Your task to perform on an android device: Do I have any events this weekend? Image 0: 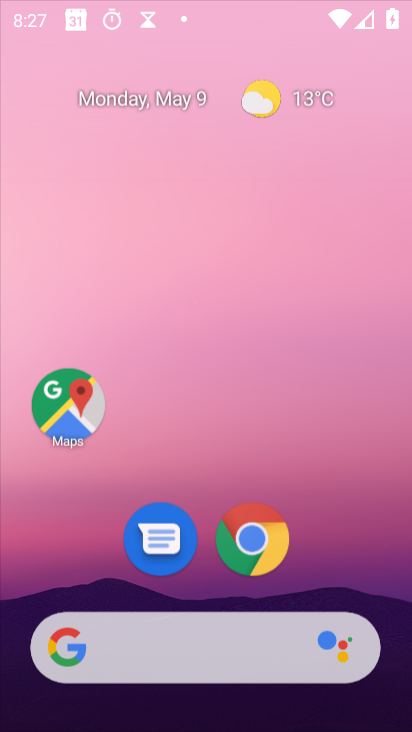
Step 0: drag from (404, 114) to (408, 368)
Your task to perform on an android device: Do I have any events this weekend? Image 1: 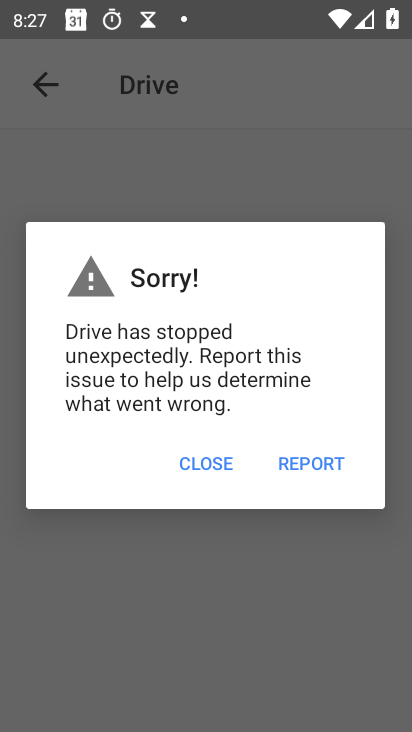
Step 1: press home button
Your task to perform on an android device: Do I have any events this weekend? Image 2: 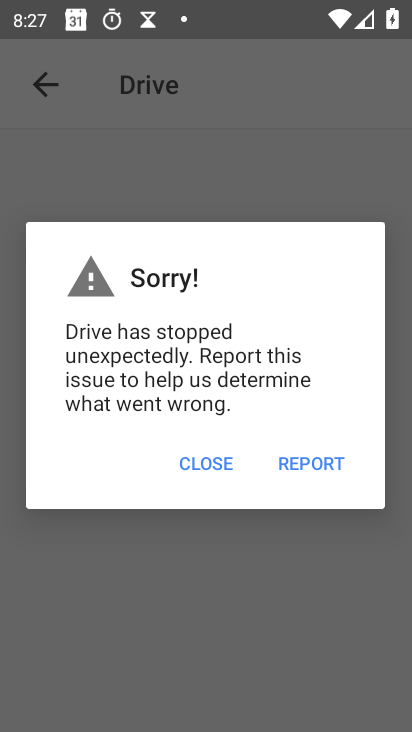
Step 2: drag from (408, 368) to (383, 512)
Your task to perform on an android device: Do I have any events this weekend? Image 3: 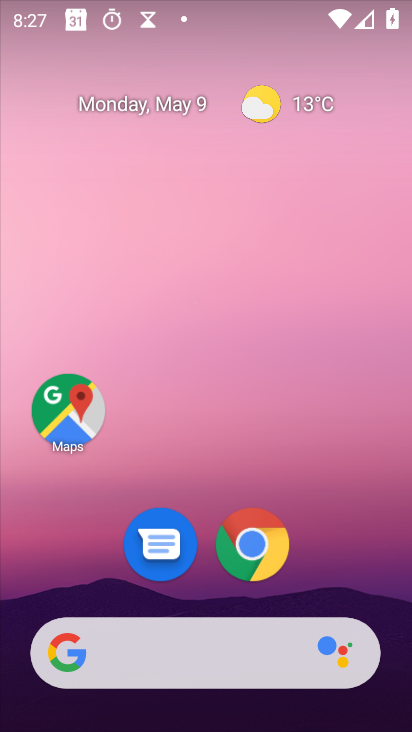
Step 3: drag from (332, 569) to (356, 44)
Your task to perform on an android device: Do I have any events this weekend? Image 4: 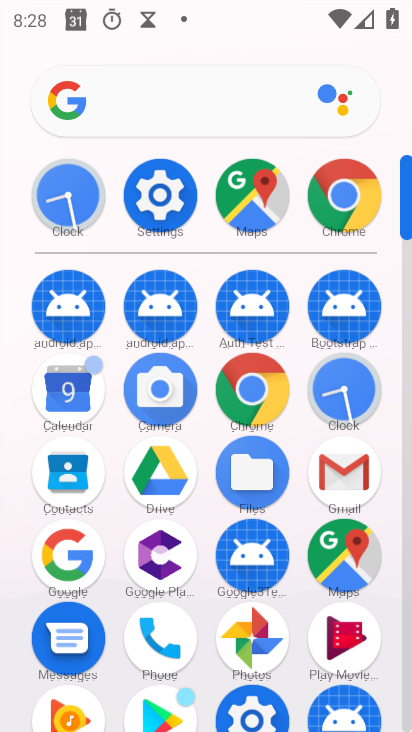
Step 4: click (72, 391)
Your task to perform on an android device: Do I have any events this weekend? Image 5: 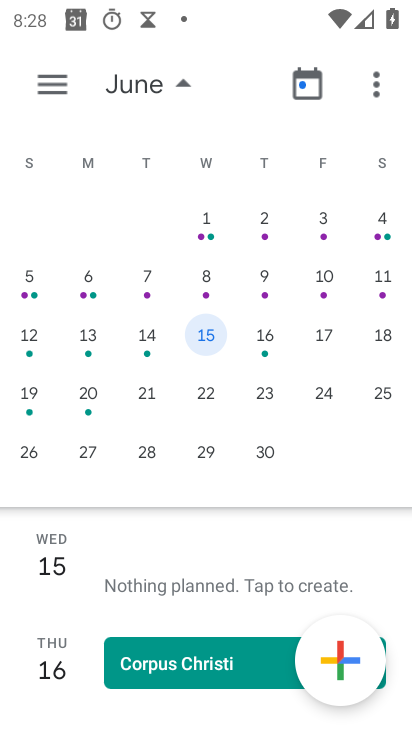
Step 5: click (260, 350)
Your task to perform on an android device: Do I have any events this weekend? Image 6: 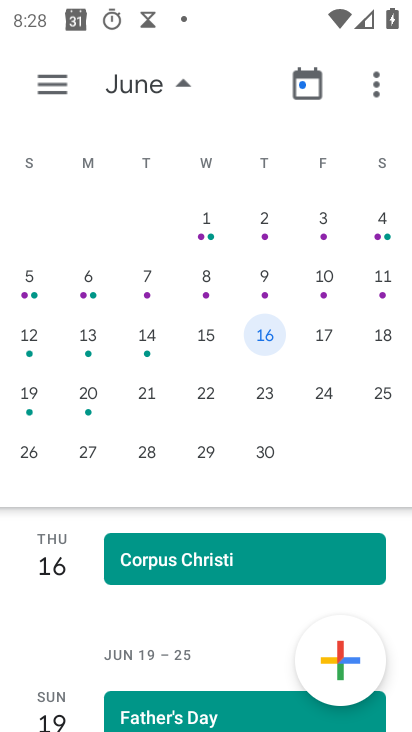
Step 6: task complete